Your task to perform on an android device: Open the Play Movies app and select the watchlist tab. Image 0: 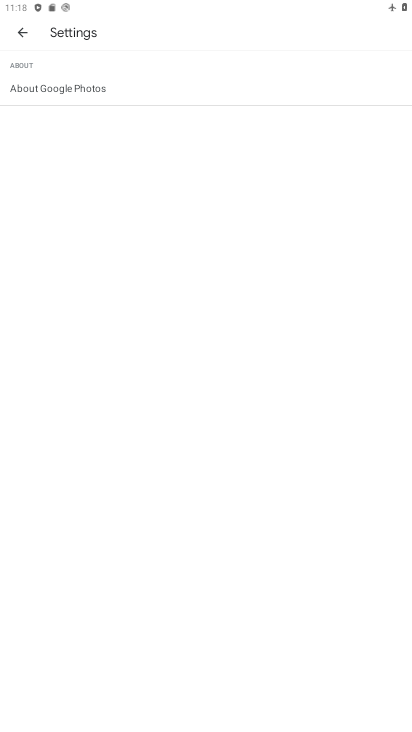
Step 0: press home button
Your task to perform on an android device: Open the Play Movies app and select the watchlist tab. Image 1: 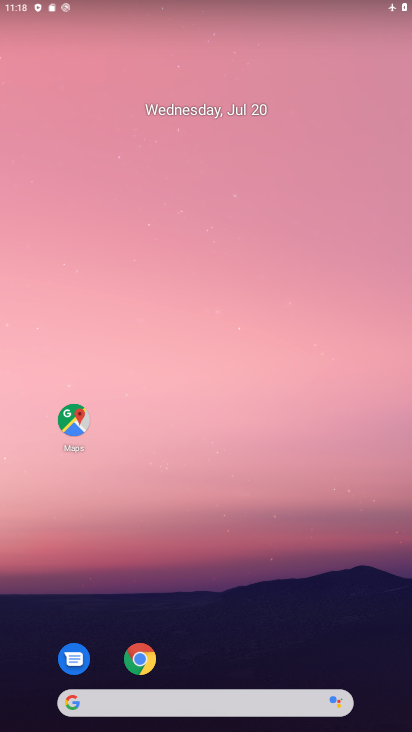
Step 1: drag from (218, 647) to (234, 14)
Your task to perform on an android device: Open the Play Movies app and select the watchlist tab. Image 2: 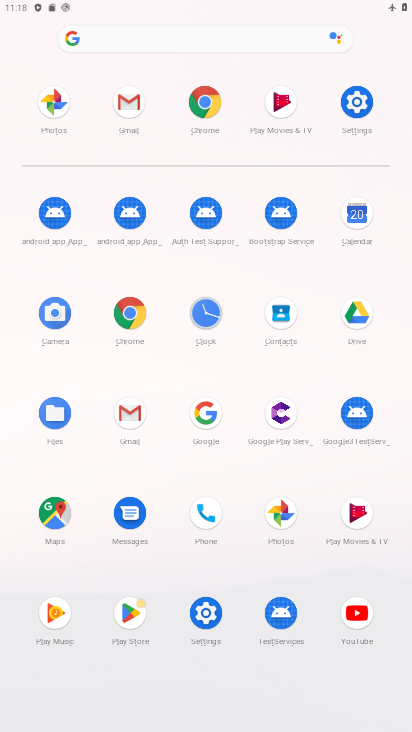
Step 2: click (353, 521)
Your task to perform on an android device: Open the Play Movies app and select the watchlist tab. Image 3: 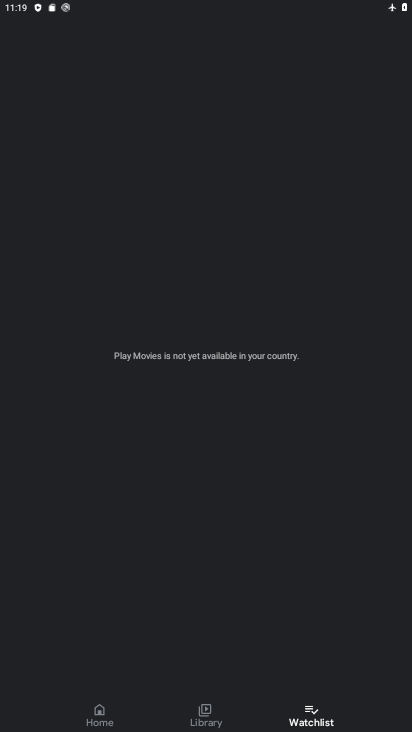
Step 3: task complete